Your task to perform on an android device: turn off sleep mode Image 0: 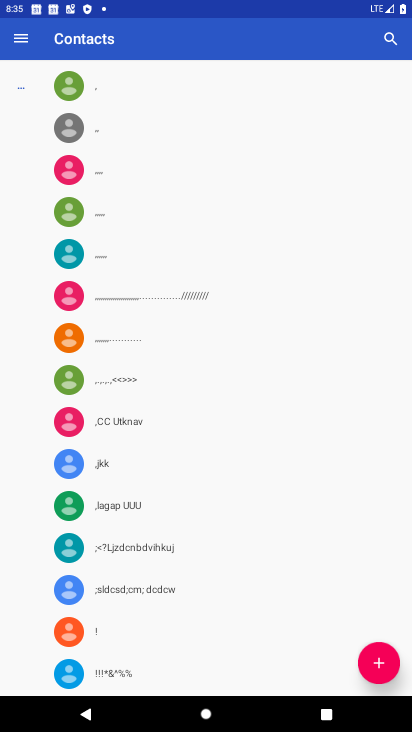
Step 0: press back button
Your task to perform on an android device: turn off sleep mode Image 1: 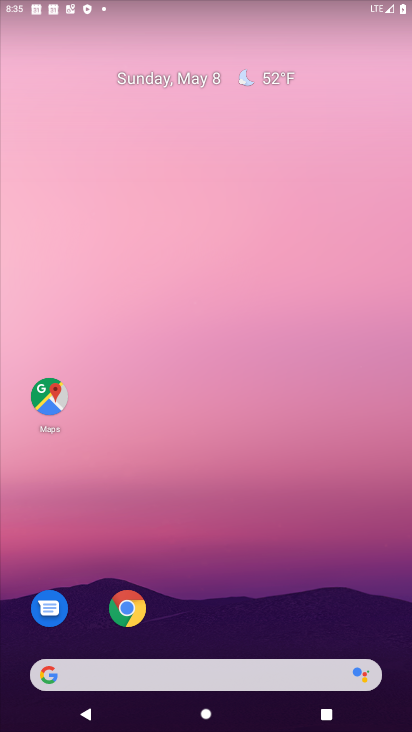
Step 1: drag from (293, 593) to (266, 26)
Your task to perform on an android device: turn off sleep mode Image 2: 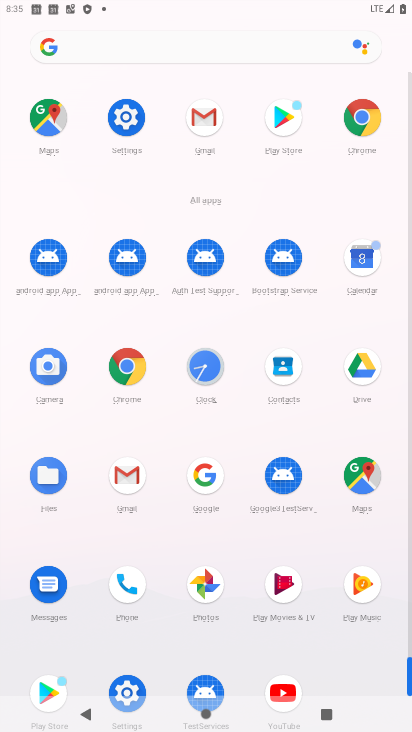
Step 2: click (121, 115)
Your task to perform on an android device: turn off sleep mode Image 3: 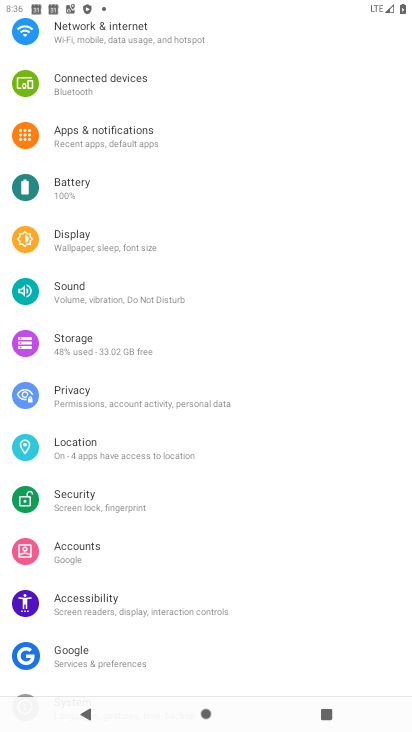
Step 3: drag from (287, 110) to (308, 575)
Your task to perform on an android device: turn off sleep mode Image 4: 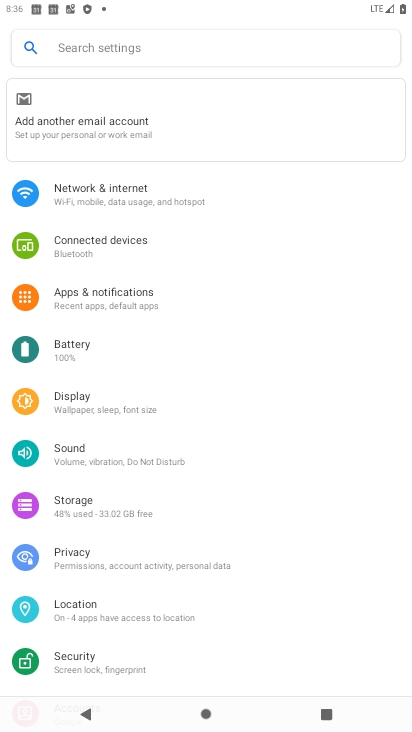
Step 4: click (126, 404)
Your task to perform on an android device: turn off sleep mode Image 5: 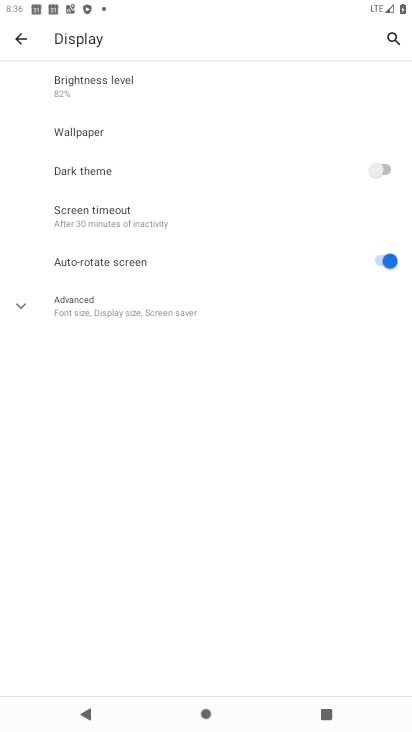
Step 5: click (29, 305)
Your task to perform on an android device: turn off sleep mode Image 6: 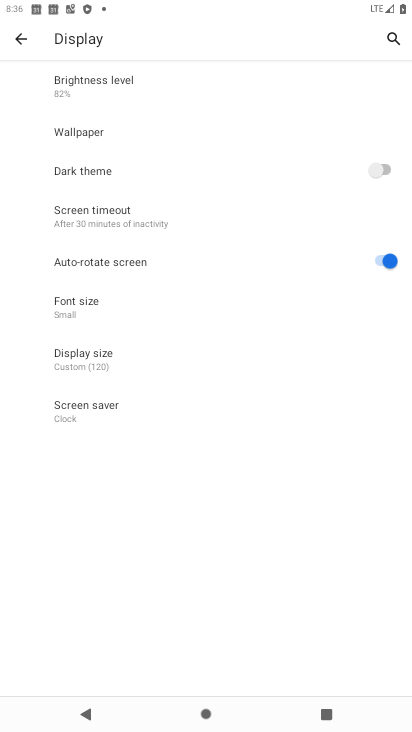
Step 6: task complete